Your task to perform on an android device: Open calendar and show me the second week of next month Image 0: 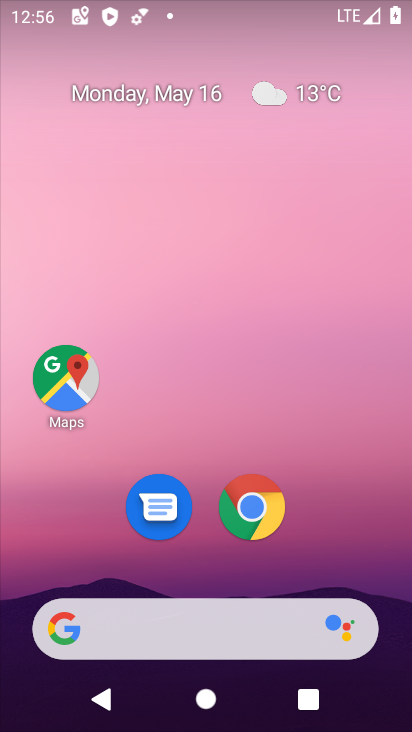
Step 0: click (147, 91)
Your task to perform on an android device: Open calendar and show me the second week of next month Image 1: 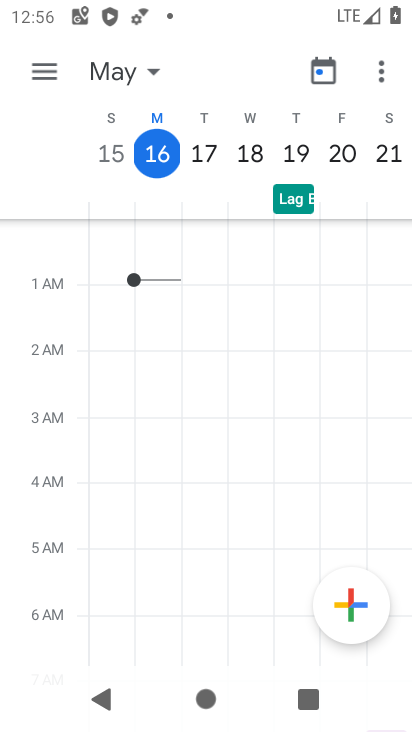
Step 1: click (149, 69)
Your task to perform on an android device: Open calendar and show me the second week of next month Image 2: 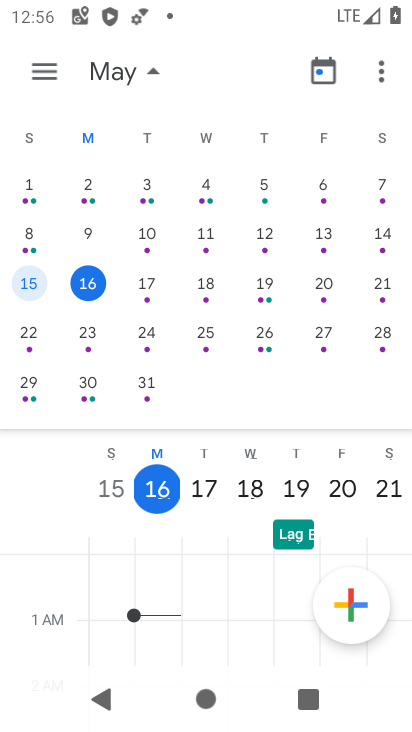
Step 2: drag from (355, 269) to (8, 270)
Your task to perform on an android device: Open calendar and show me the second week of next month Image 3: 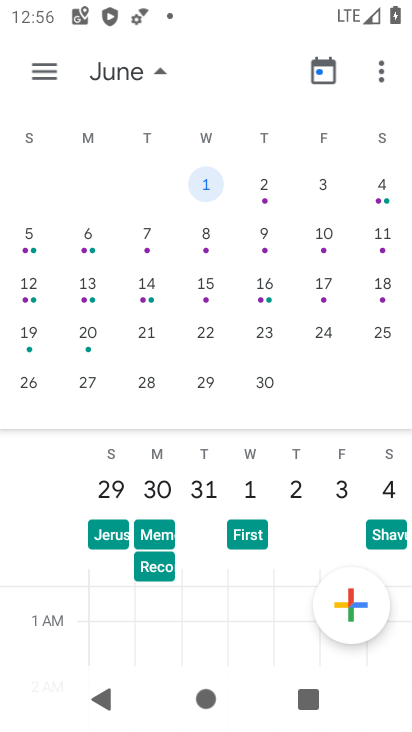
Step 3: click (38, 240)
Your task to perform on an android device: Open calendar and show me the second week of next month Image 4: 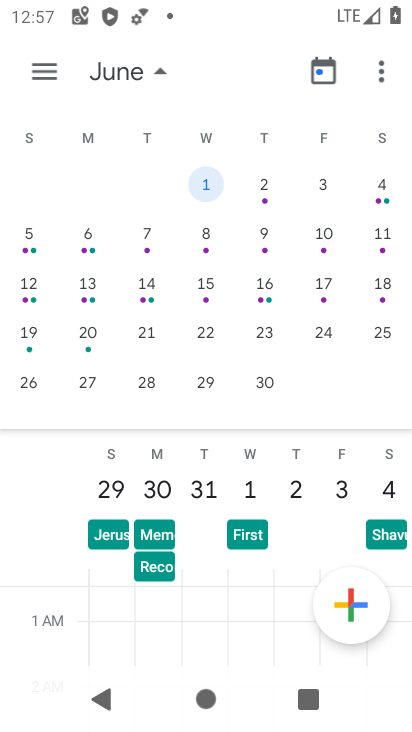
Step 4: task complete